Your task to perform on an android device: turn on airplane mode Image 0: 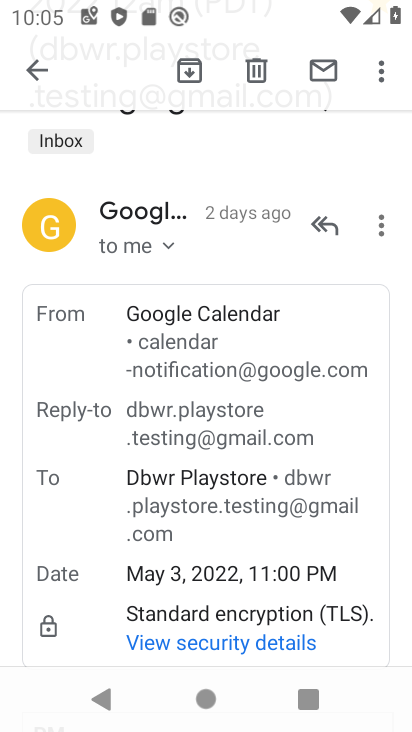
Step 0: press home button
Your task to perform on an android device: turn on airplane mode Image 1: 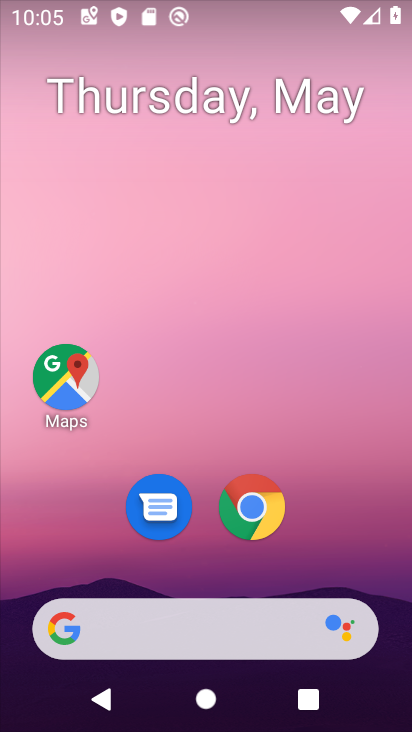
Step 1: drag from (283, 539) to (303, 246)
Your task to perform on an android device: turn on airplane mode Image 2: 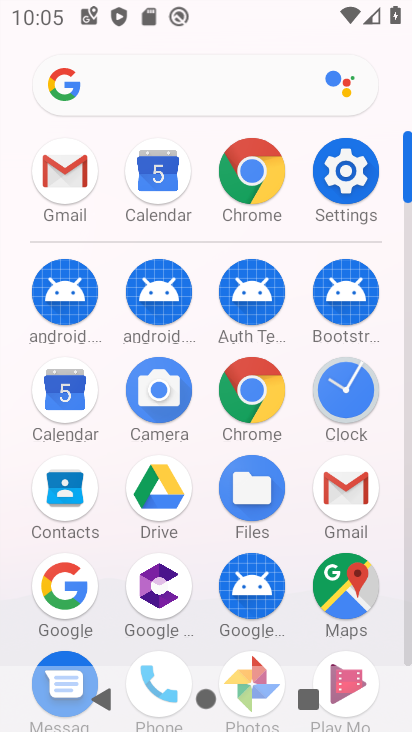
Step 2: click (344, 189)
Your task to perform on an android device: turn on airplane mode Image 3: 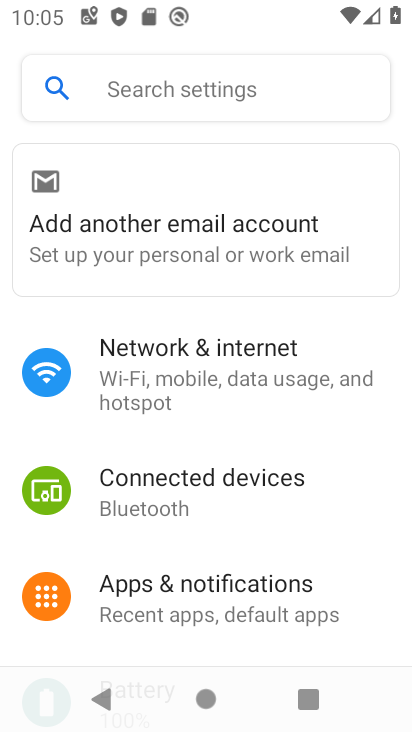
Step 3: click (257, 367)
Your task to perform on an android device: turn on airplane mode Image 4: 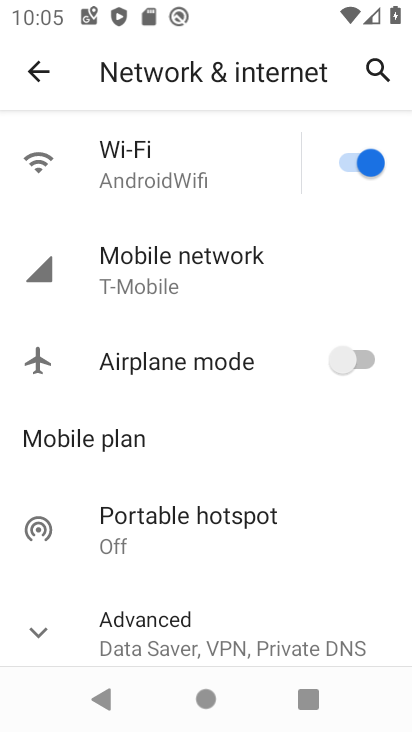
Step 4: click (269, 360)
Your task to perform on an android device: turn on airplane mode Image 5: 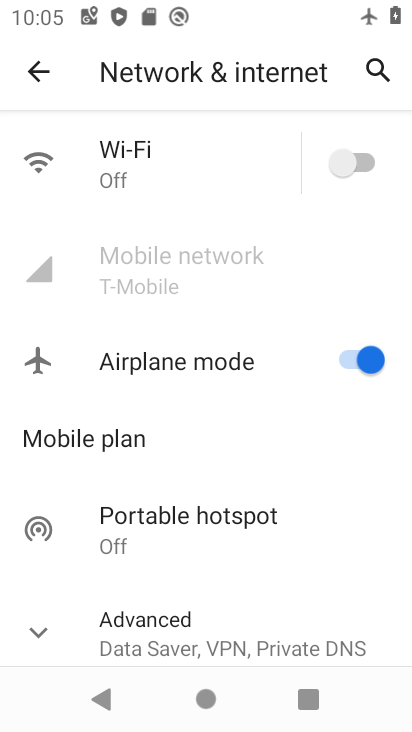
Step 5: task complete